Your task to perform on an android device: Go to network settings Image 0: 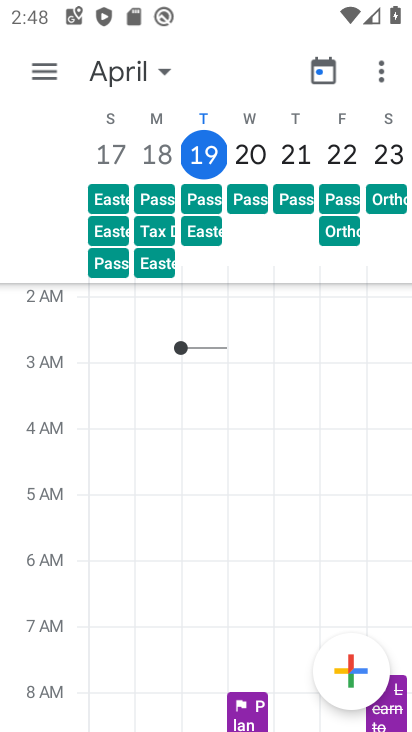
Step 0: press home button
Your task to perform on an android device: Go to network settings Image 1: 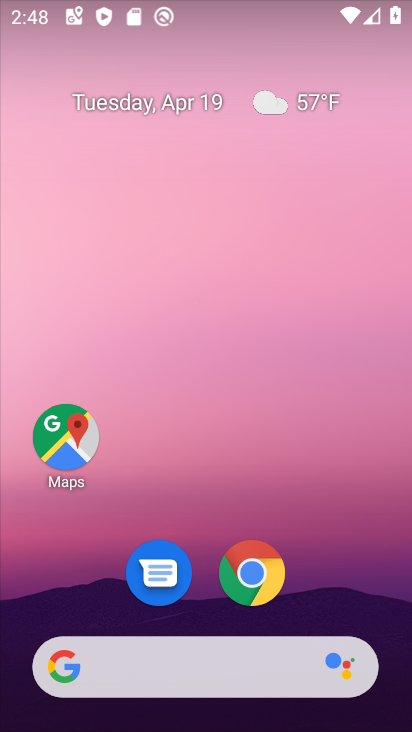
Step 1: drag from (397, 615) to (411, 344)
Your task to perform on an android device: Go to network settings Image 2: 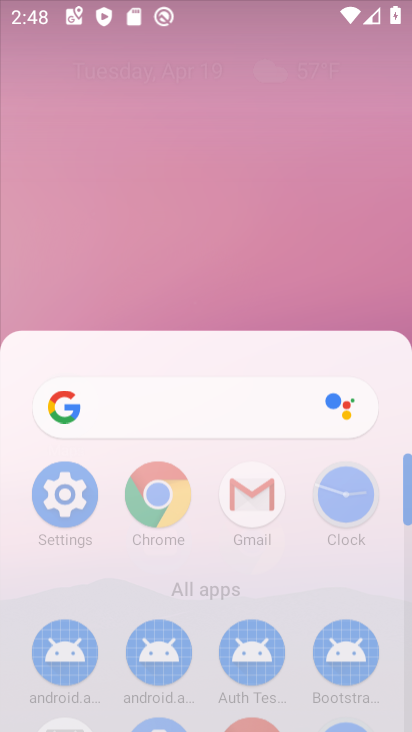
Step 2: drag from (369, 516) to (356, 25)
Your task to perform on an android device: Go to network settings Image 3: 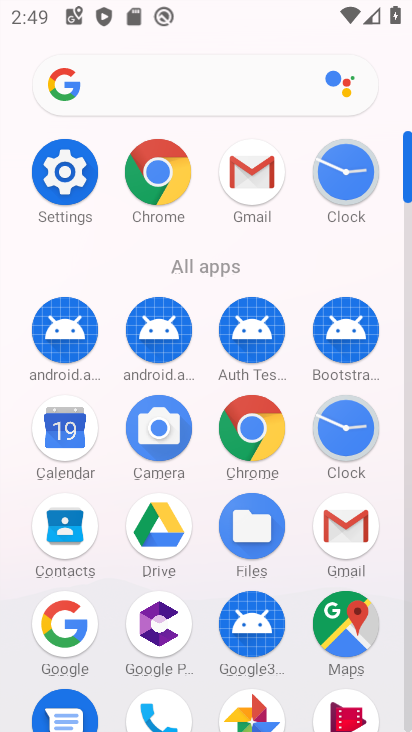
Step 3: click (66, 172)
Your task to perform on an android device: Go to network settings Image 4: 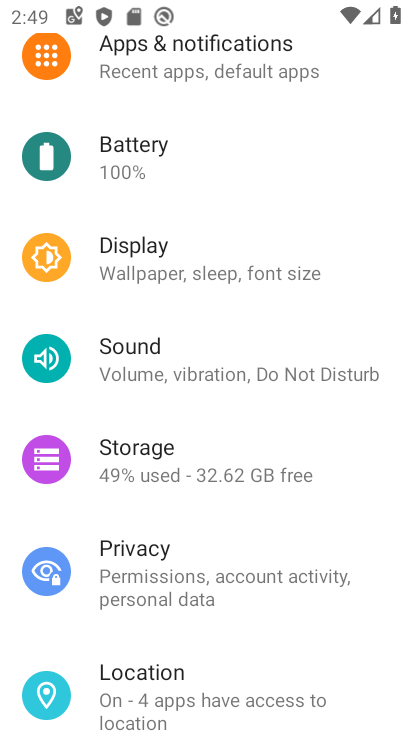
Step 4: drag from (371, 117) to (402, 541)
Your task to perform on an android device: Go to network settings Image 5: 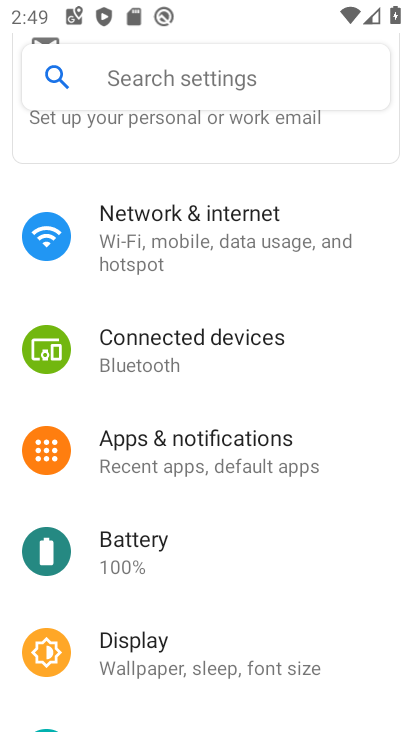
Step 5: click (163, 227)
Your task to perform on an android device: Go to network settings Image 6: 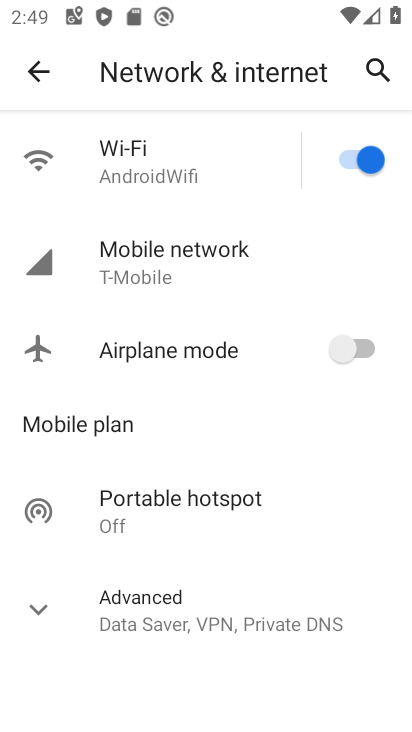
Step 6: task complete